Your task to perform on an android device: Check the news Image 0: 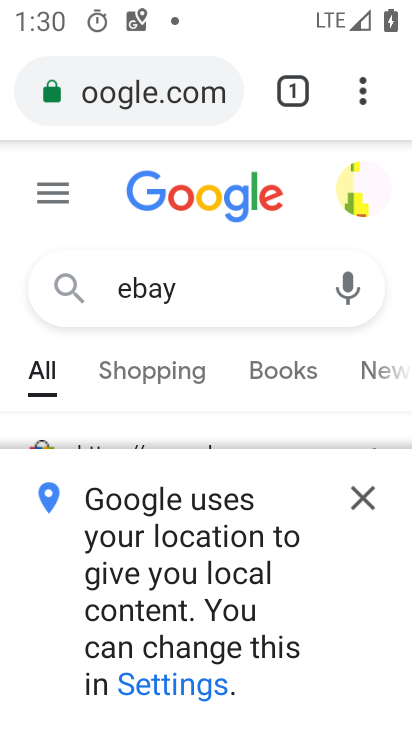
Step 0: press home button
Your task to perform on an android device: Check the news Image 1: 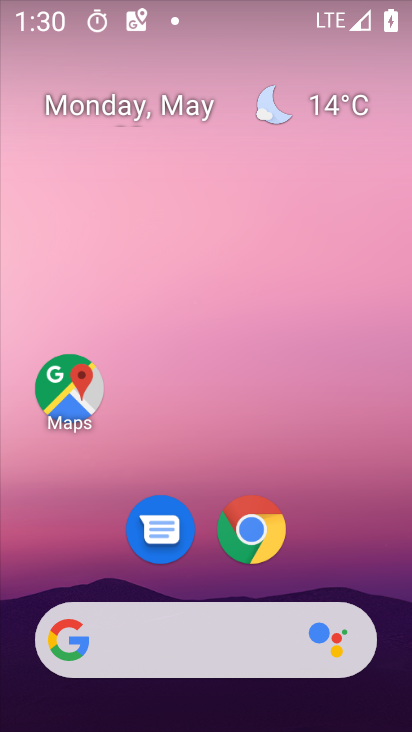
Step 1: task complete